Your task to perform on an android device: check out phone information Image 0: 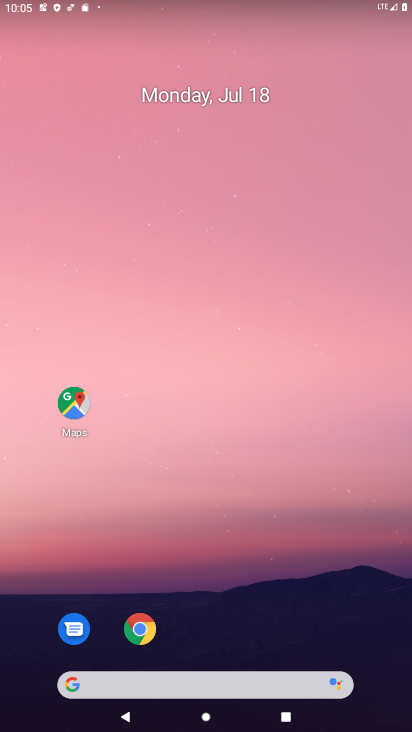
Step 0: drag from (218, 672) to (178, 217)
Your task to perform on an android device: check out phone information Image 1: 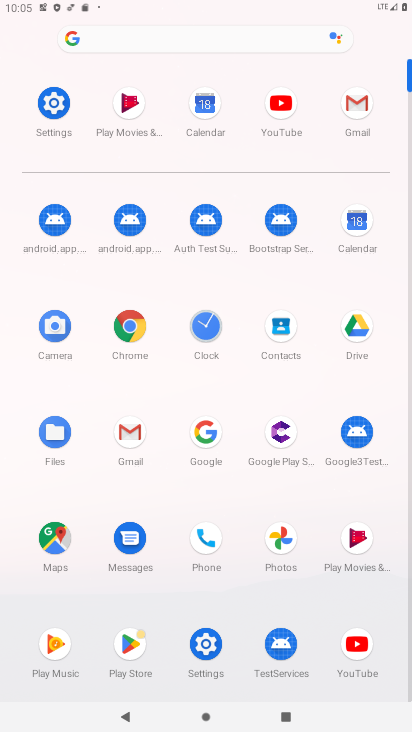
Step 1: click (217, 632)
Your task to perform on an android device: check out phone information Image 2: 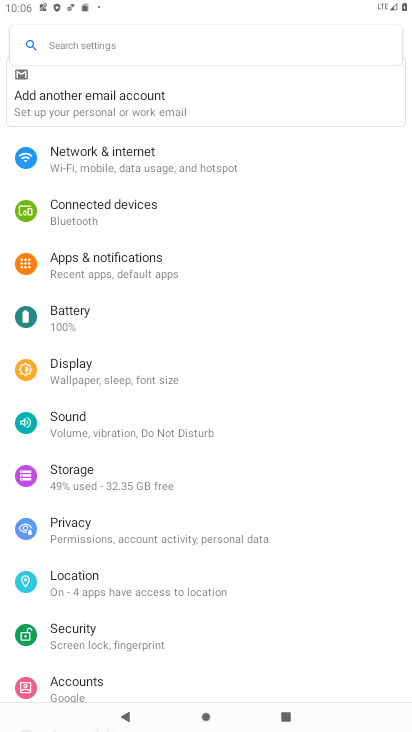
Step 2: drag from (112, 659) to (49, 3)
Your task to perform on an android device: check out phone information Image 3: 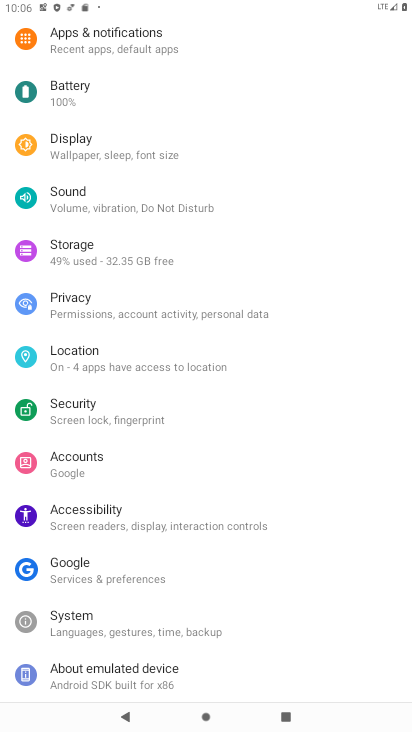
Step 3: click (151, 667)
Your task to perform on an android device: check out phone information Image 4: 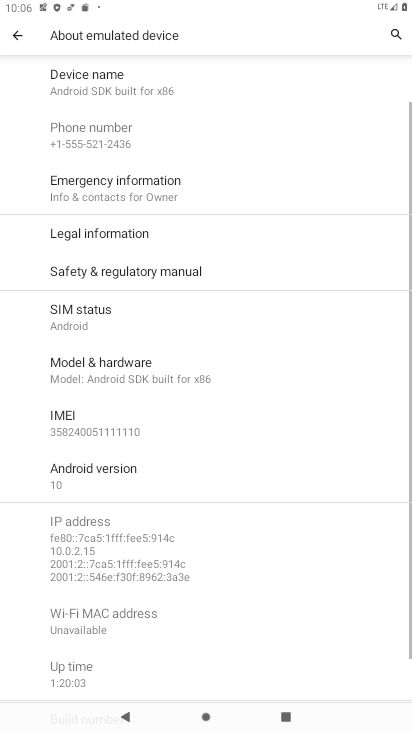
Step 4: task complete